Your task to perform on an android device: find snoozed emails in the gmail app Image 0: 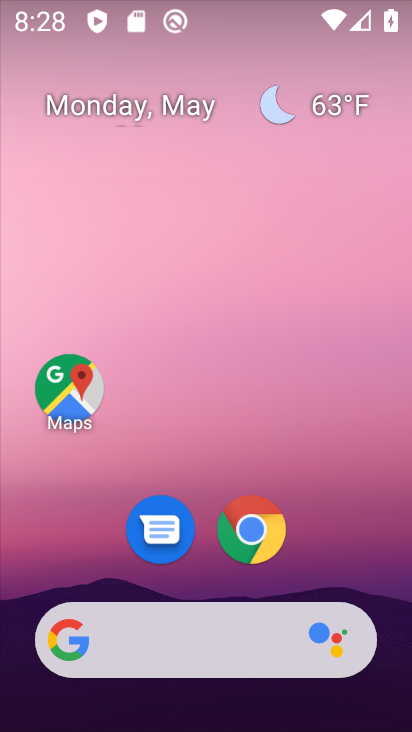
Step 0: drag from (133, 242) to (144, 138)
Your task to perform on an android device: find snoozed emails in the gmail app Image 1: 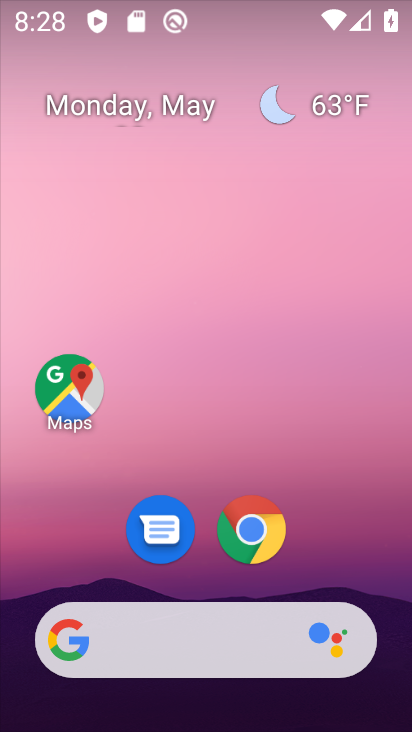
Step 1: drag from (100, 609) to (156, 91)
Your task to perform on an android device: find snoozed emails in the gmail app Image 2: 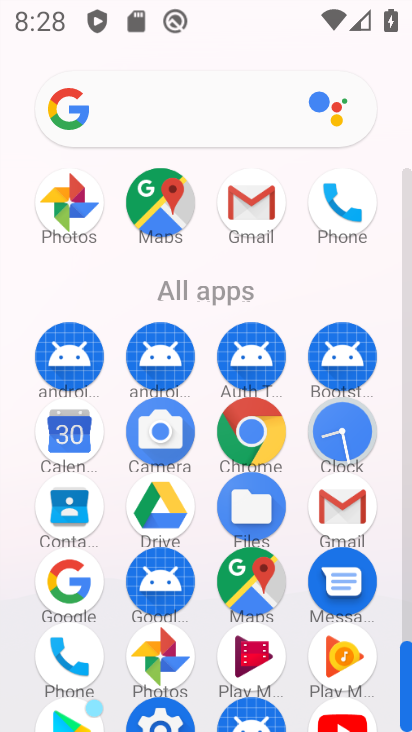
Step 2: click (355, 503)
Your task to perform on an android device: find snoozed emails in the gmail app Image 3: 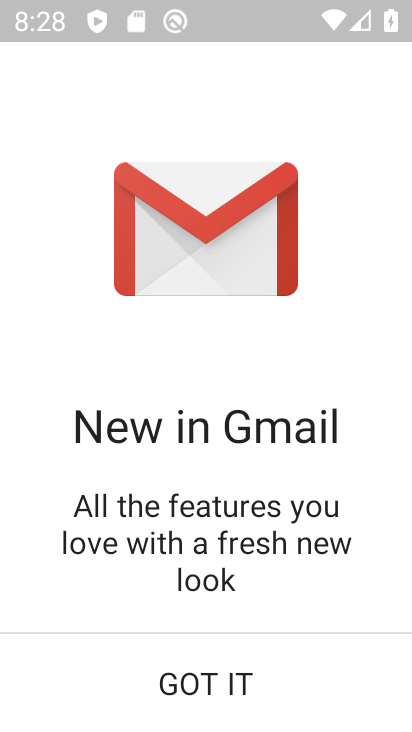
Step 3: click (200, 692)
Your task to perform on an android device: find snoozed emails in the gmail app Image 4: 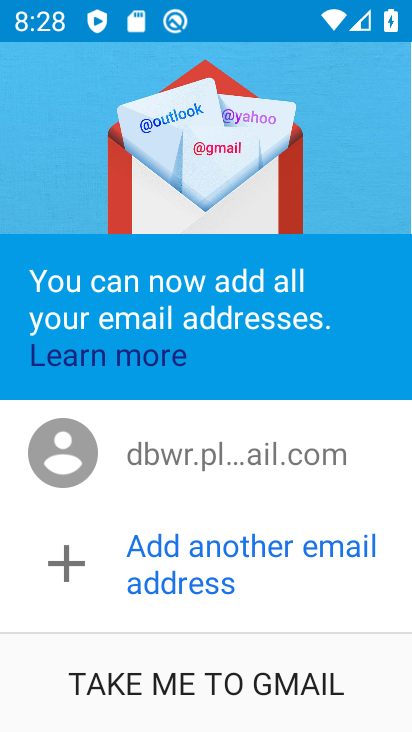
Step 4: click (279, 682)
Your task to perform on an android device: find snoozed emails in the gmail app Image 5: 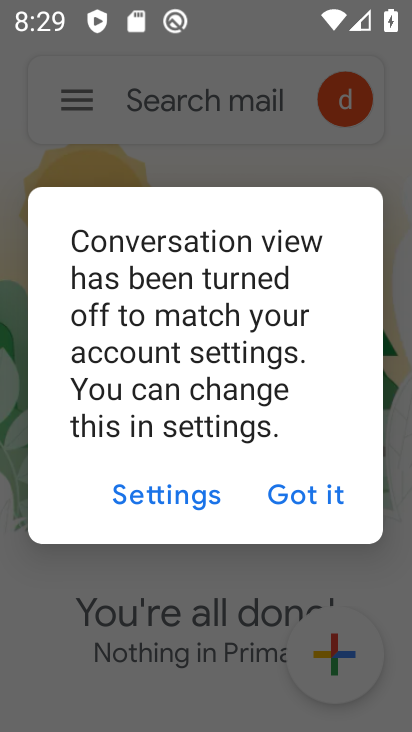
Step 5: click (318, 496)
Your task to perform on an android device: find snoozed emails in the gmail app Image 6: 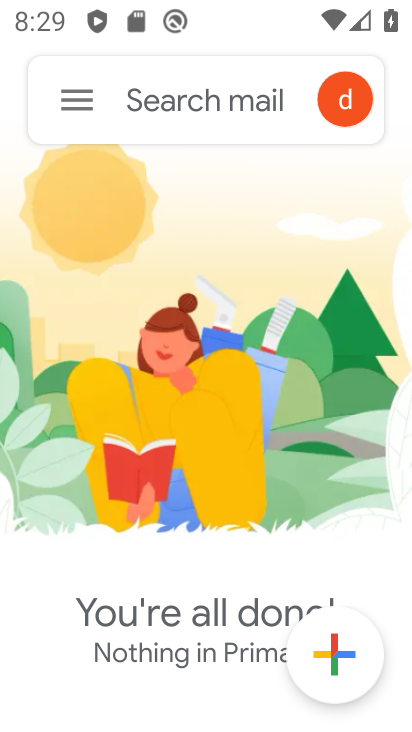
Step 6: click (71, 88)
Your task to perform on an android device: find snoozed emails in the gmail app Image 7: 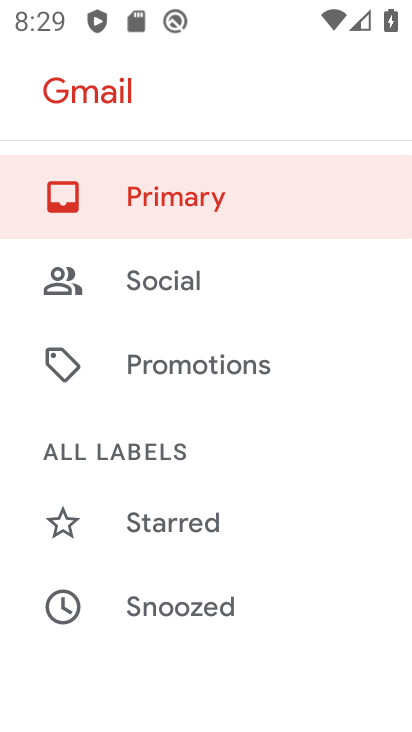
Step 7: drag from (202, 598) to (261, 317)
Your task to perform on an android device: find snoozed emails in the gmail app Image 8: 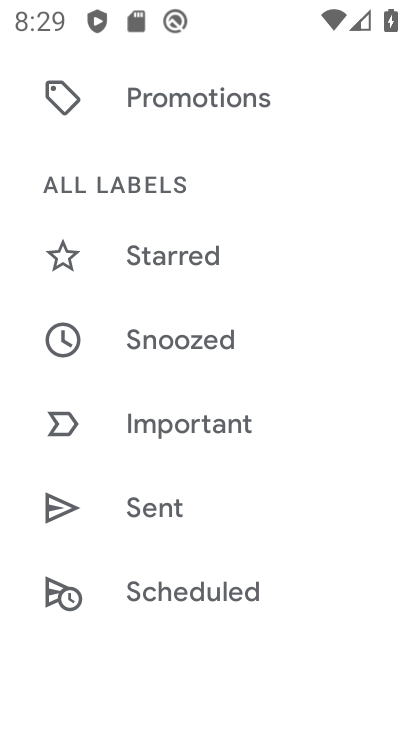
Step 8: click (229, 351)
Your task to perform on an android device: find snoozed emails in the gmail app Image 9: 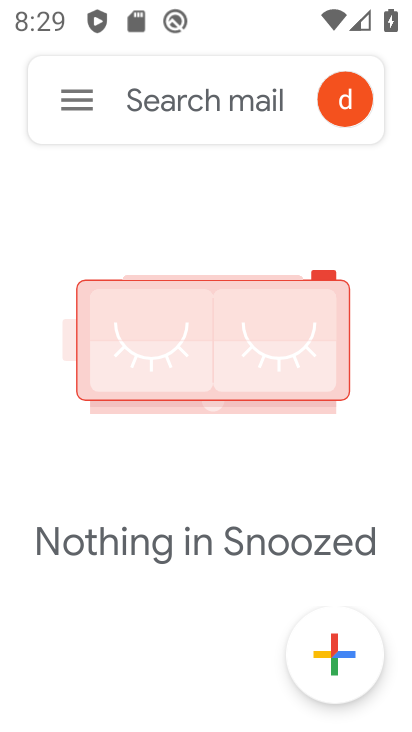
Step 9: task complete